Your task to perform on an android device: Go to privacy settings Image 0: 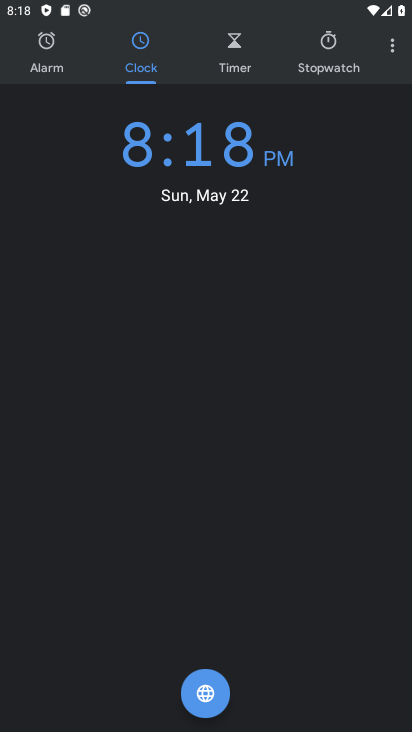
Step 0: press home button
Your task to perform on an android device: Go to privacy settings Image 1: 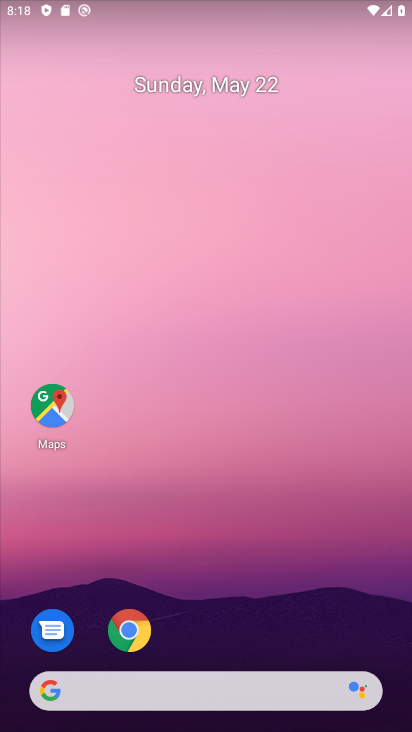
Step 1: drag from (205, 686) to (351, 181)
Your task to perform on an android device: Go to privacy settings Image 2: 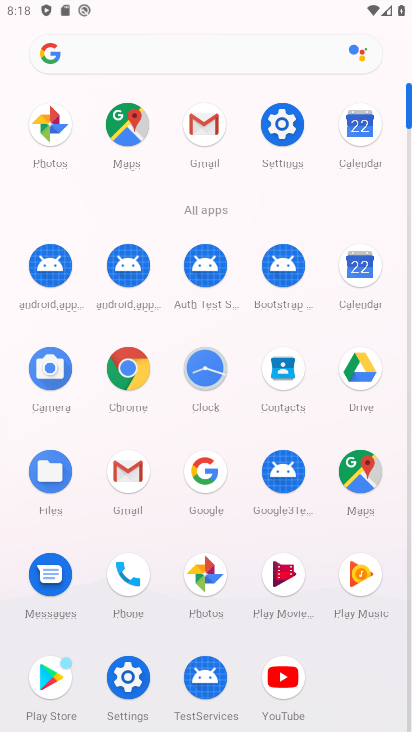
Step 2: click (287, 134)
Your task to perform on an android device: Go to privacy settings Image 3: 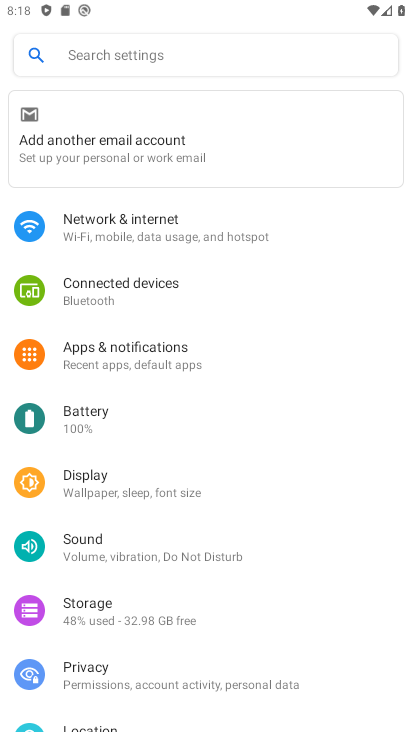
Step 3: drag from (282, 602) to (379, 335)
Your task to perform on an android device: Go to privacy settings Image 4: 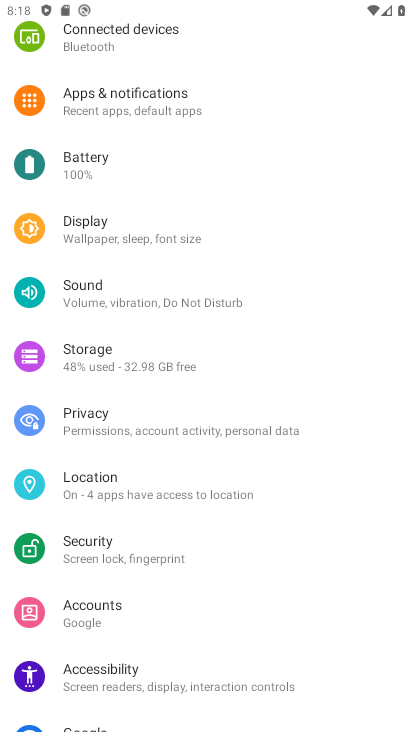
Step 4: click (121, 422)
Your task to perform on an android device: Go to privacy settings Image 5: 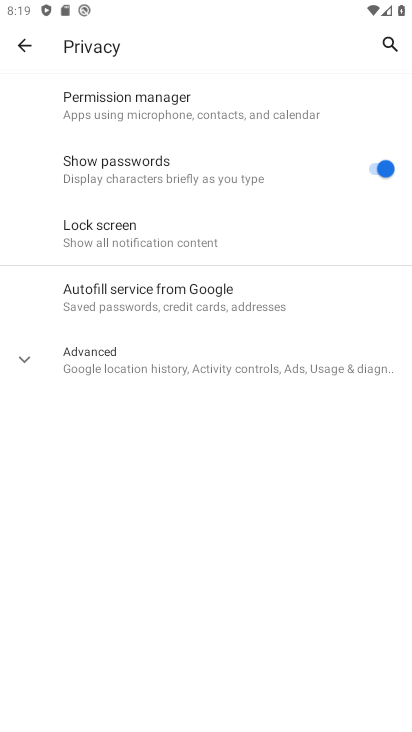
Step 5: task complete